Your task to perform on an android device: What is the recent news? Image 0: 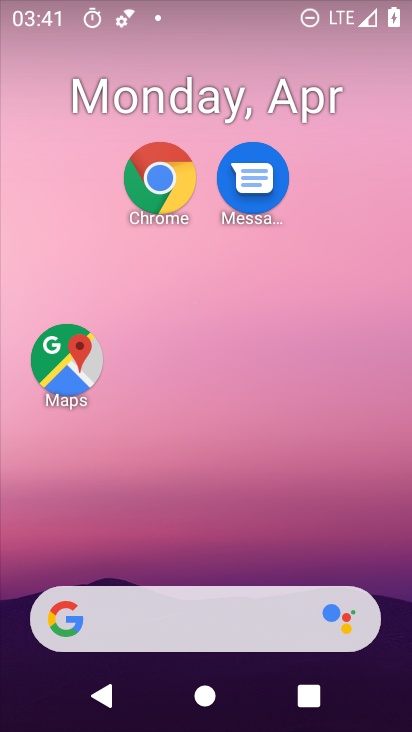
Step 0: drag from (262, 545) to (253, 5)
Your task to perform on an android device: What is the recent news? Image 1: 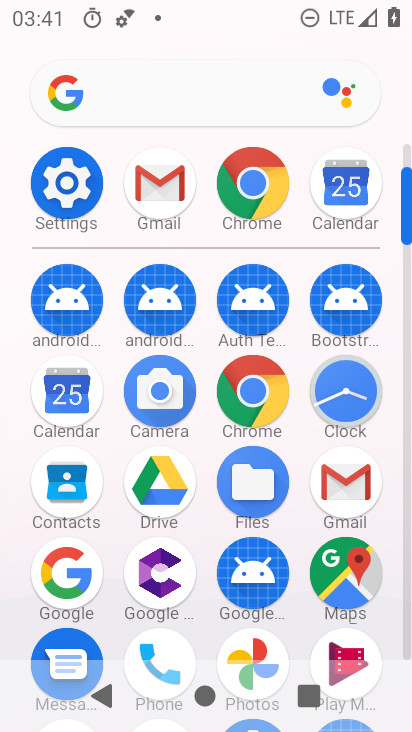
Step 1: click (263, 386)
Your task to perform on an android device: What is the recent news? Image 2: 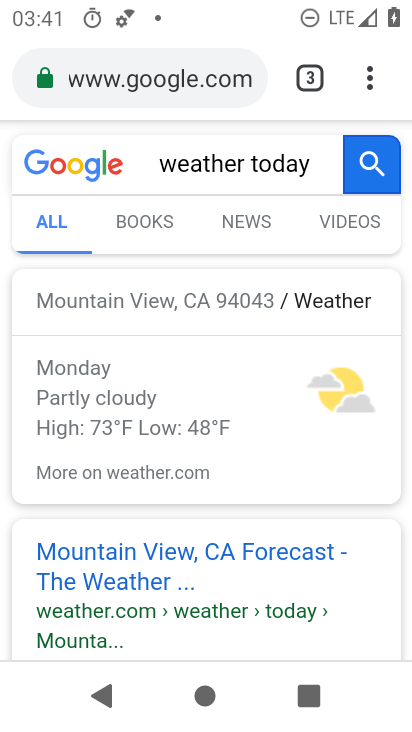
Step 2: click (218, 82)
Your task to perform on an android device: What is the recent news? Image 3: 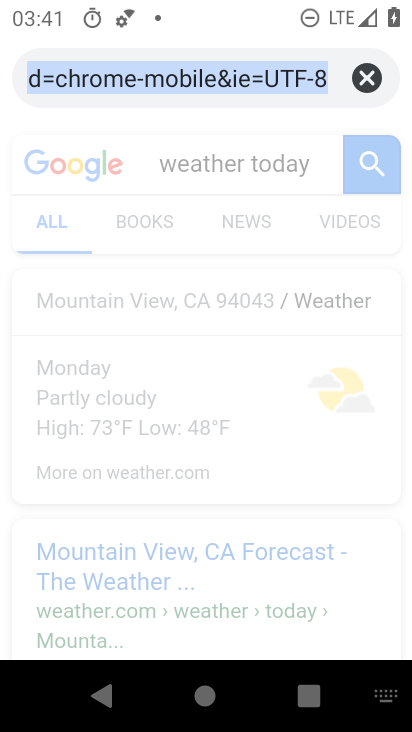
Step 3: click (368, 78)
Your task to perform on an android device: What is the recent news? Image 4: 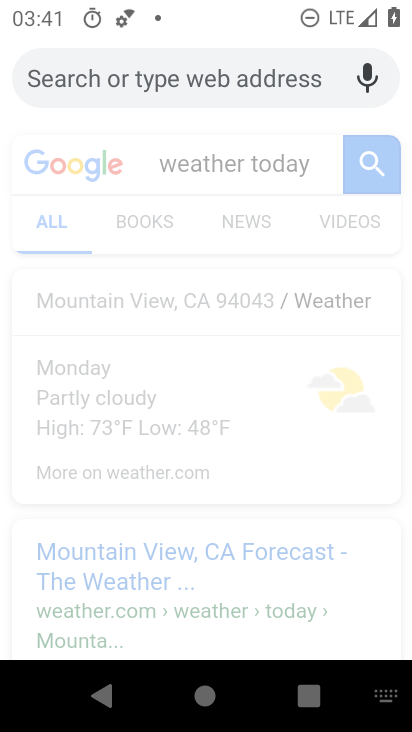
Step 4: click (292, 97)
Your task to perform on an android device: What is the recent news? Image 5: 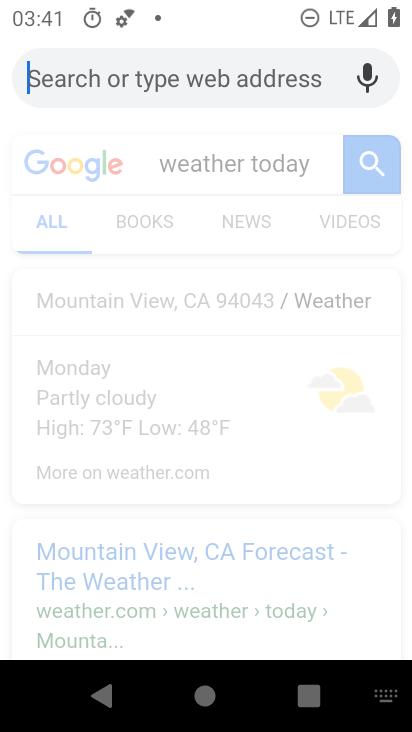
Step 5: click (292, 97)
Your task to perform on an android device: What is the recent news? Image 6: 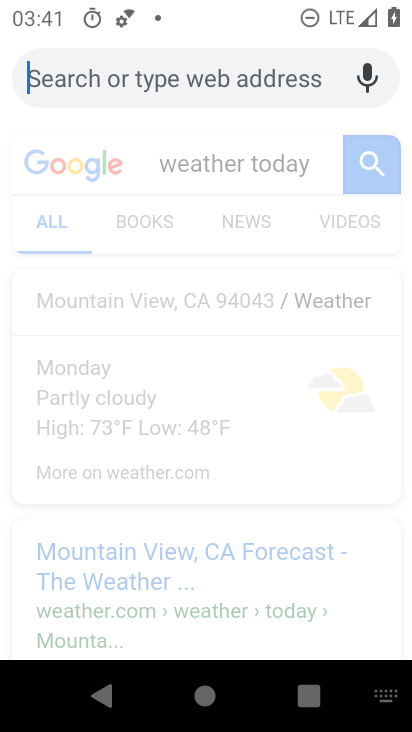
Step 6: type "recent news"
Your task to perform on an android device: What is the recent news? Image 7: 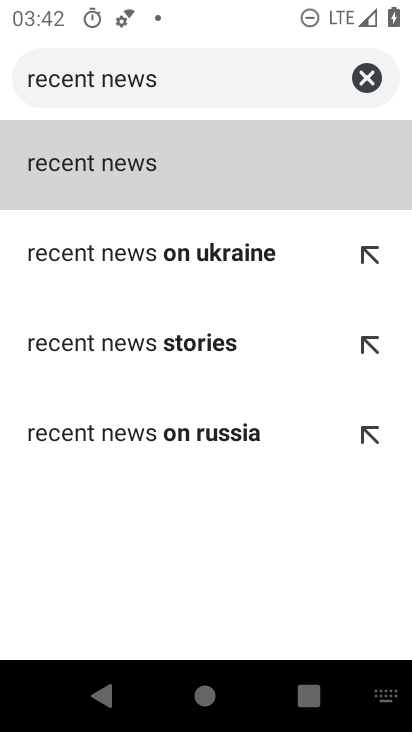
Step 7: click (170, 165)
Your task to perform on an android device: What is the recent news? Image 8: 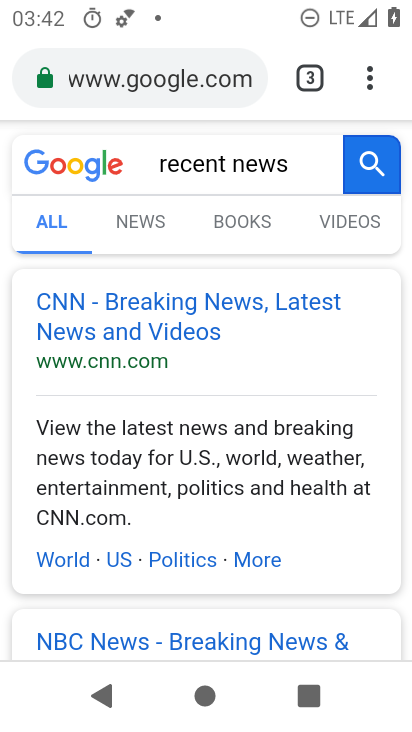
Step 8: task complete